Your task to perform on an android device: Go to battery settings Image 0: 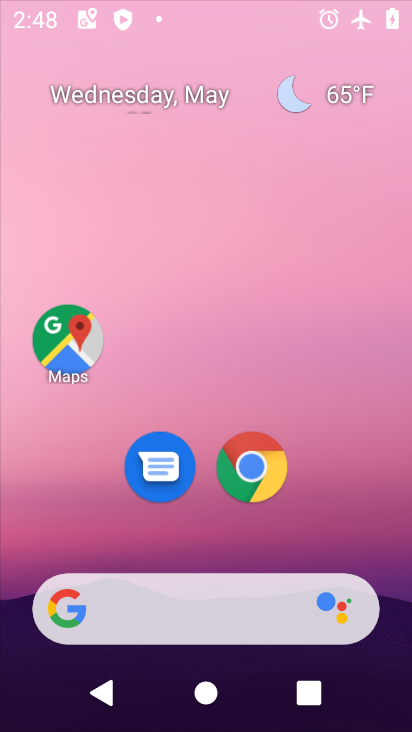
Step 0: click (268, 228)
Your task to perform on an android device: Go to battery settings Image 1: 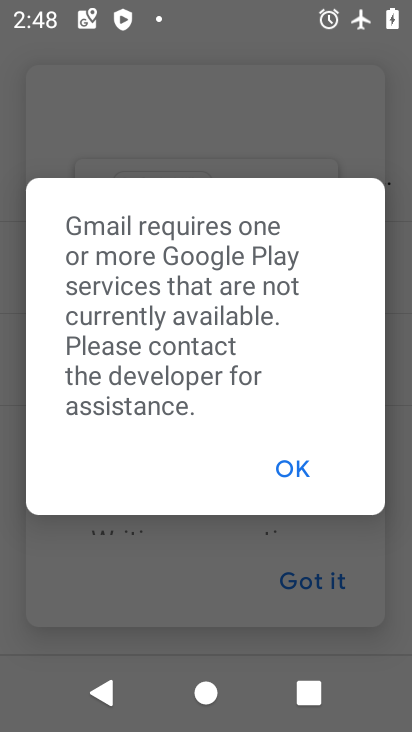
Step 1: press home button
Your task to perform on an android device: Go to battery settings Image 2: 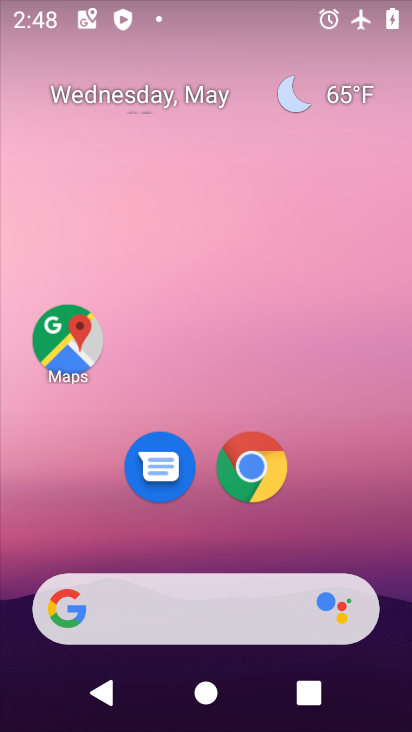
Step 2: drag from (227, 543) to (270, 242)
Your task to perform on an android device: Go to battery settings Image 3: 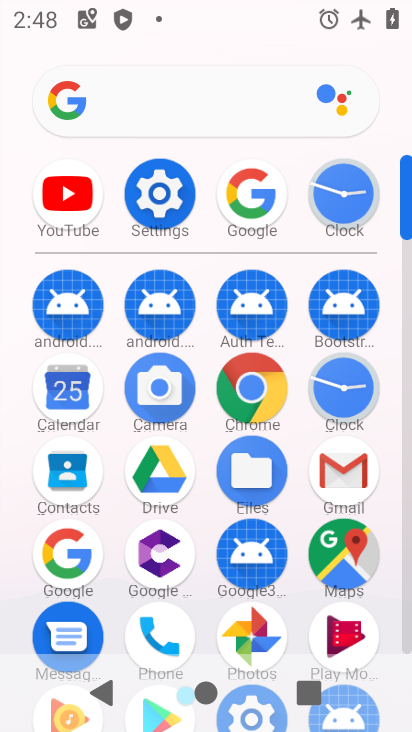
Step 3: click (156, 193)
Your task to perform on an android device: Go to battery settings Image 4: 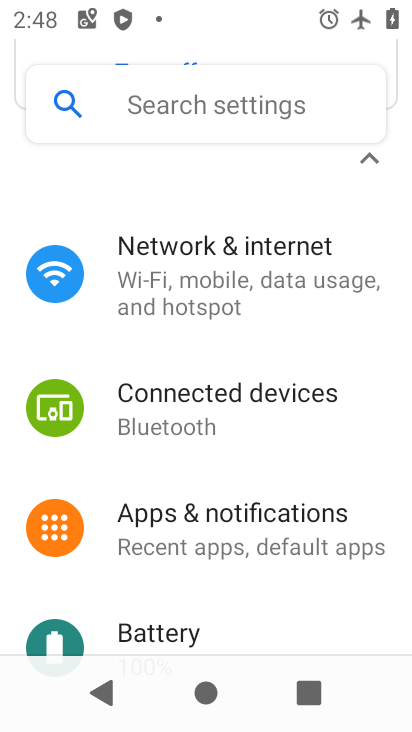
Step 4: drag from (248, 564) to (255, 259)
Your task to perform on an android device: Go to battery settings Image 5: 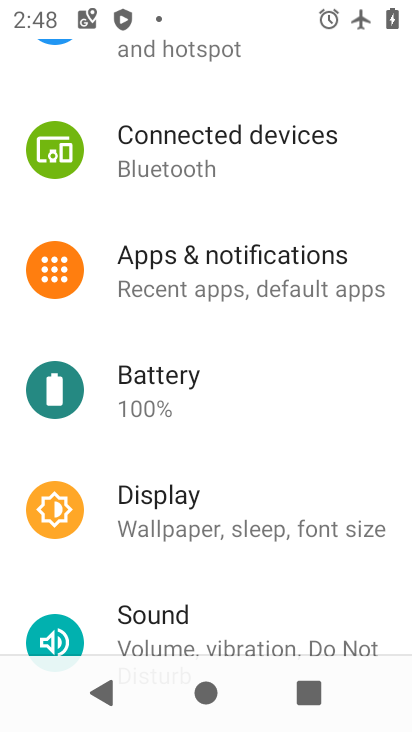
Step 5: click (211, 392)
Your task to perform on an android device: Go to battery settings Image 6: 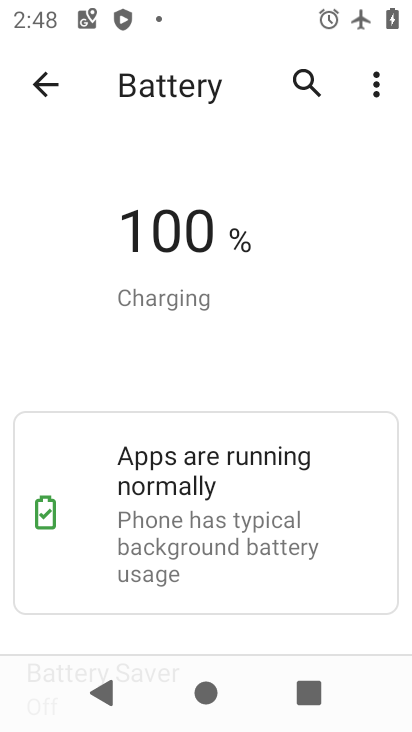
Step 6: task complete